Your task to perform on an android device: What's the news this month? Image 0: 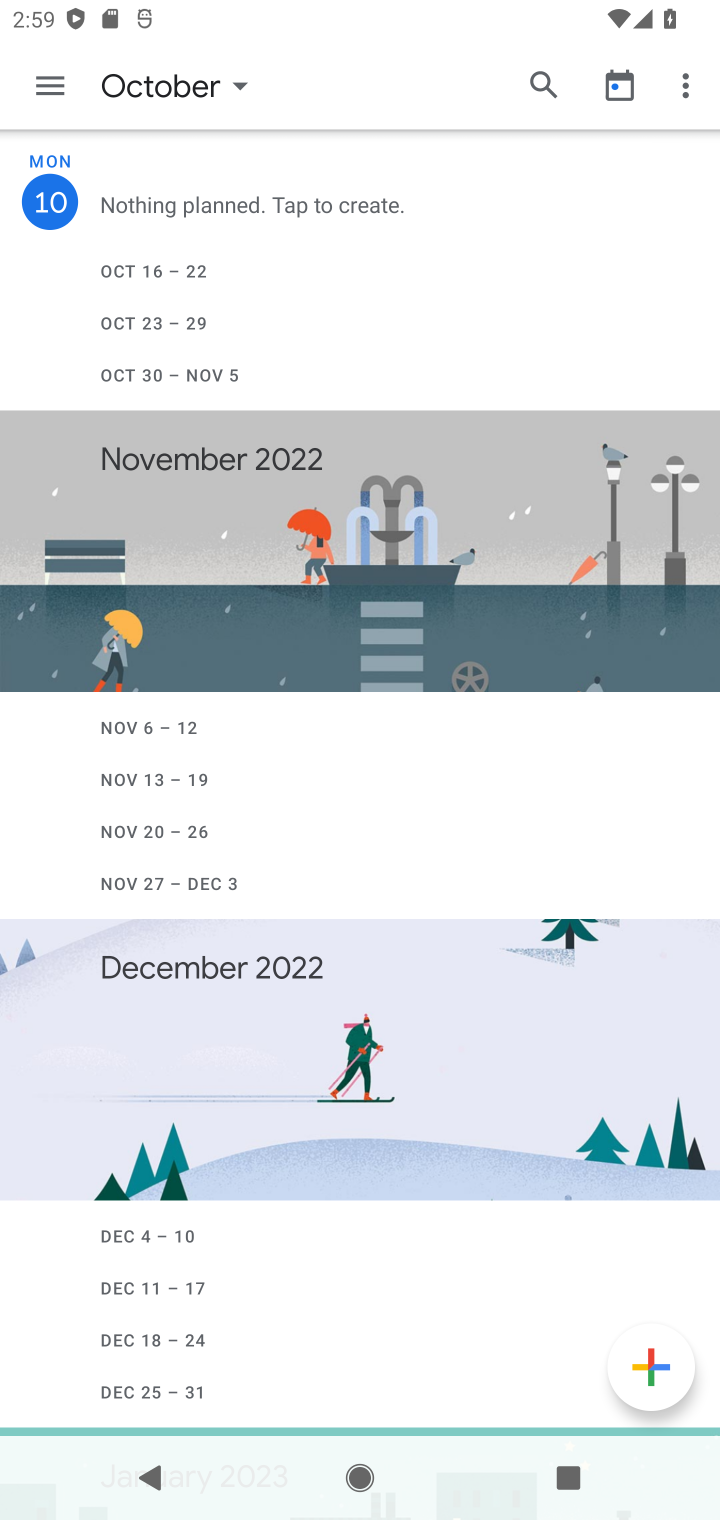
Step 0: press home button
Your task to perform on an android device: What's the news this month? Image 1: 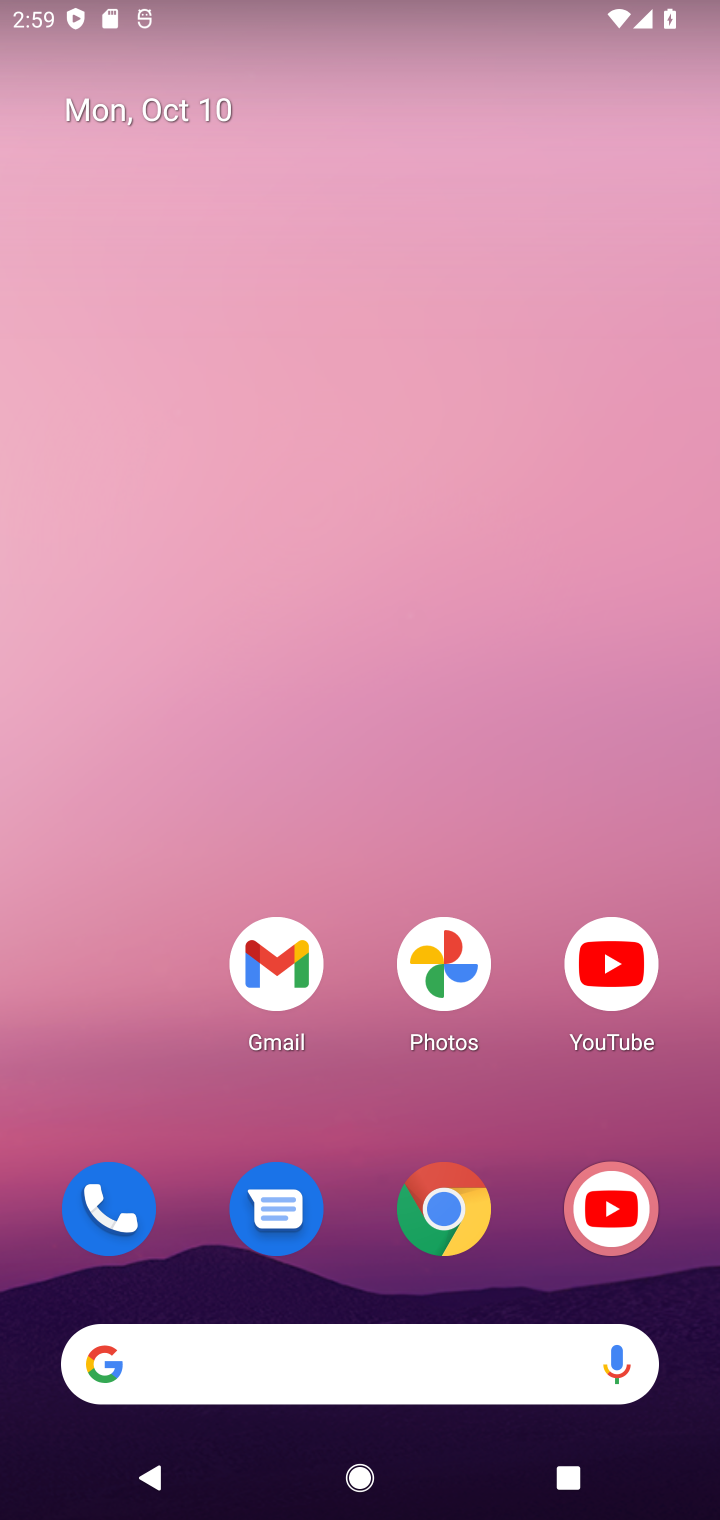
Step 1: click (470, 1238)
Your task to perform on an android device: What's the news this month? Image 2: 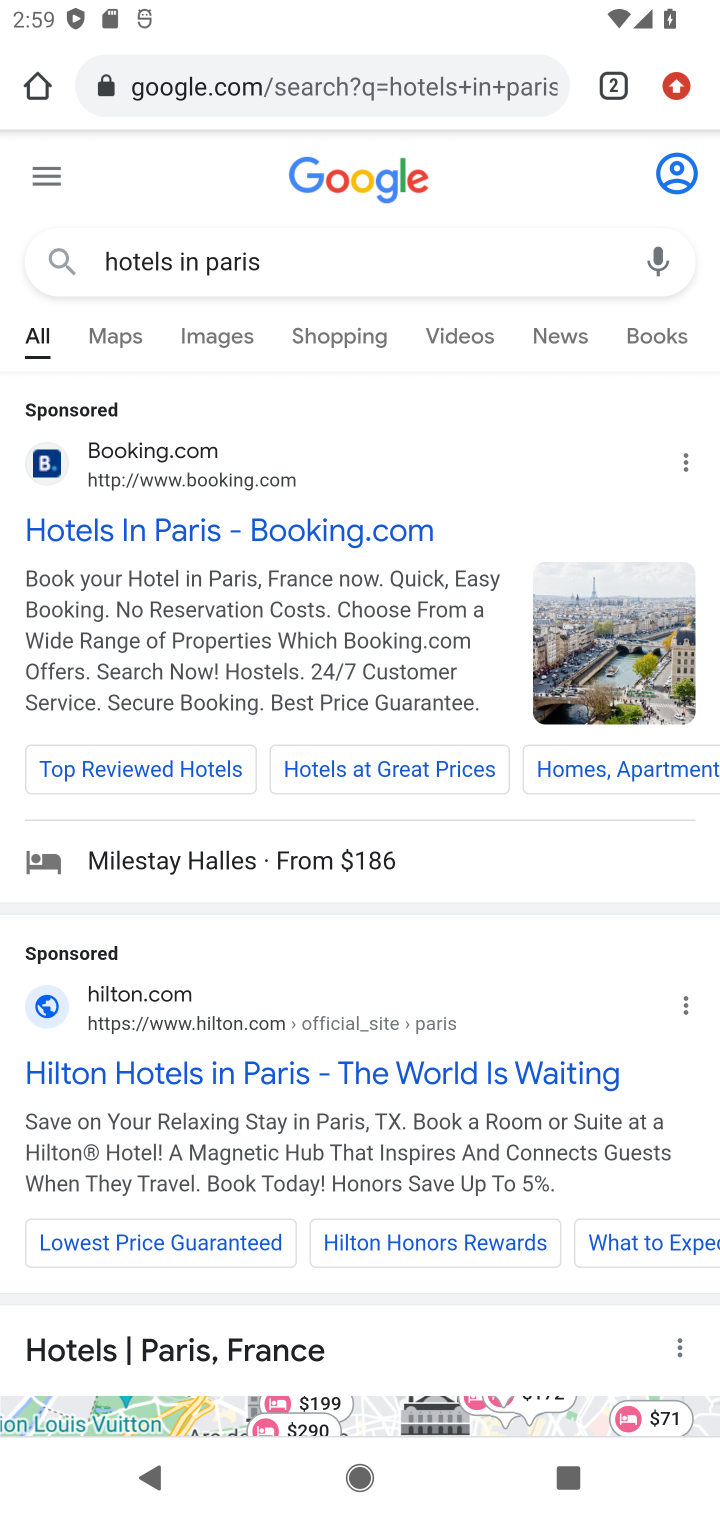
Step 2: click (467, 255)
Your task to perform on an android device: What's the news this month? Image 3: 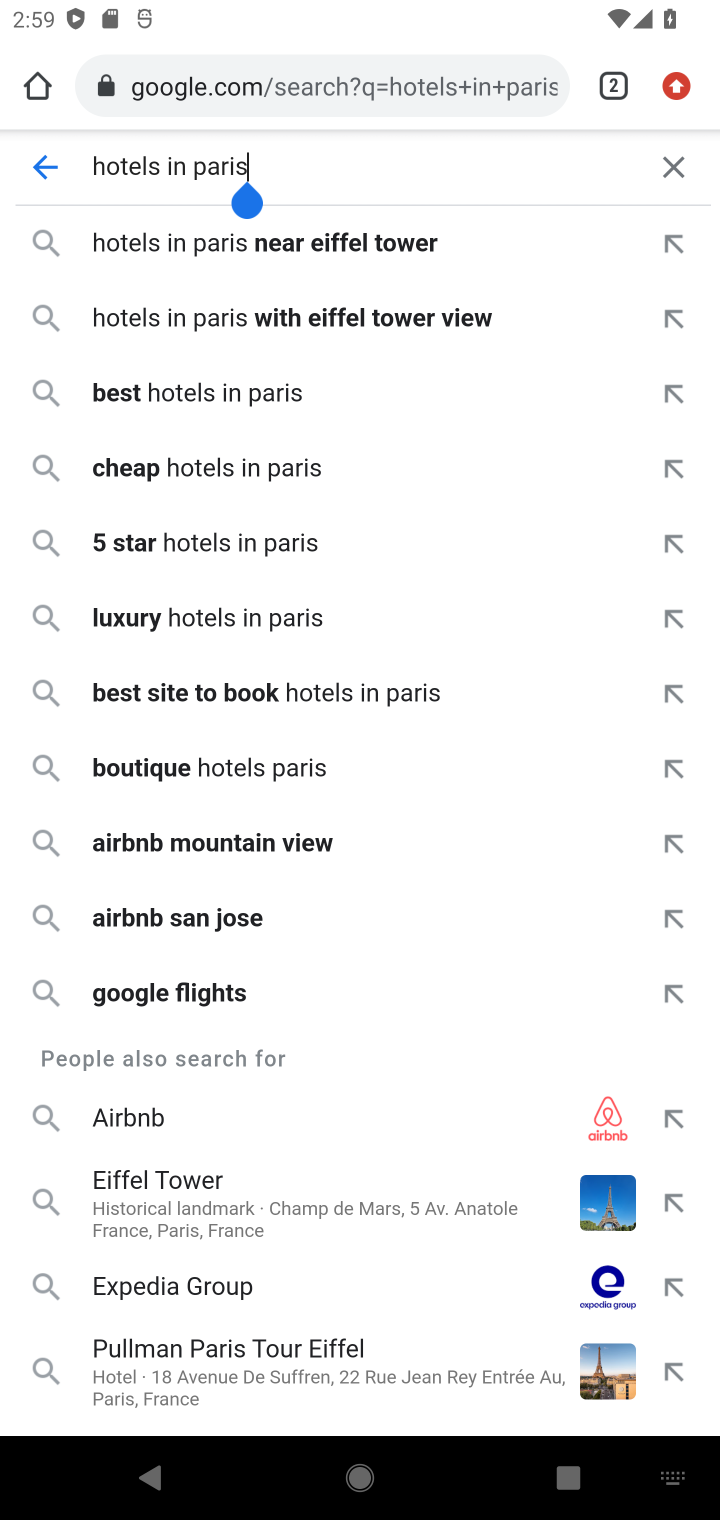
Step 3: click (668, 176)
Your task to perform on an android device: What's the news this month? Image 4: 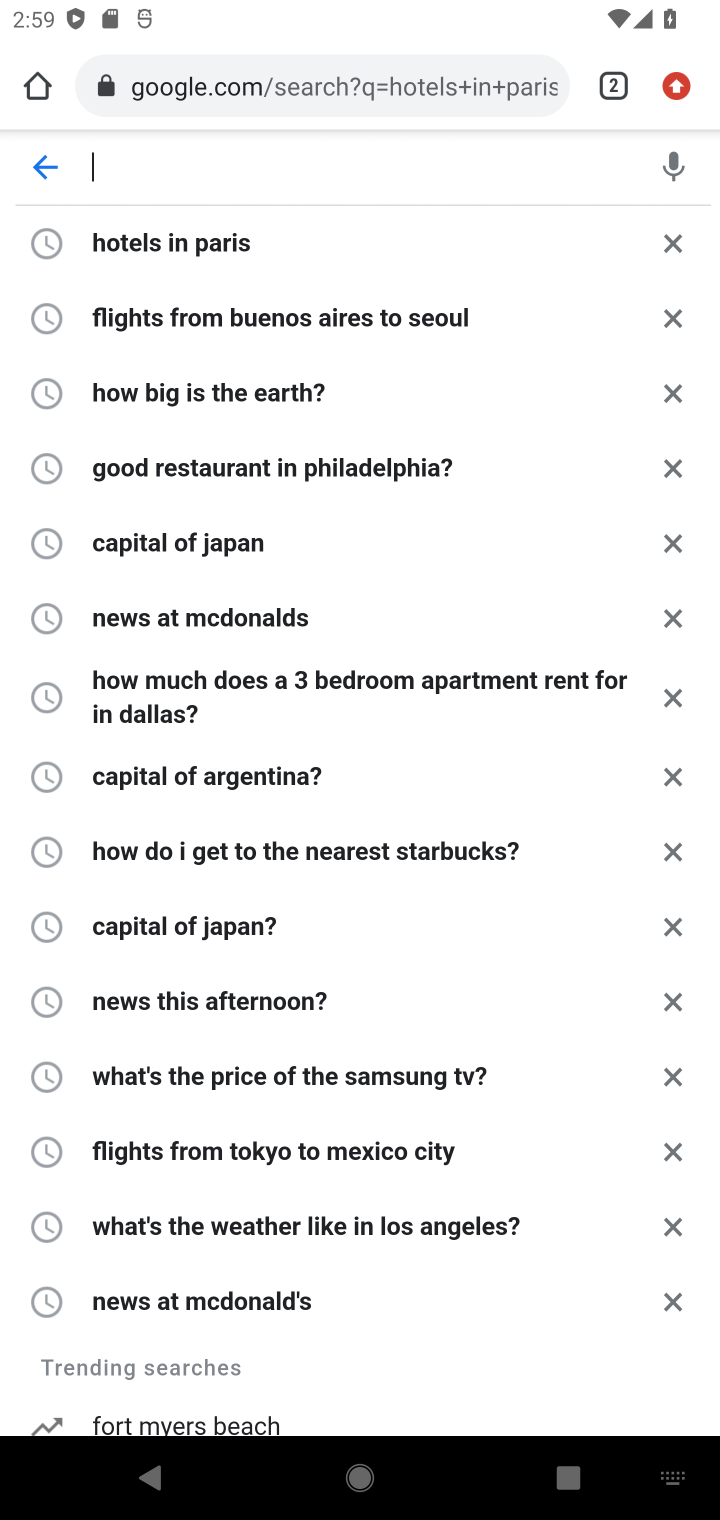
Step 4: type "news this month"
Your task to perform on an android device: What's the news this month? Image 5: 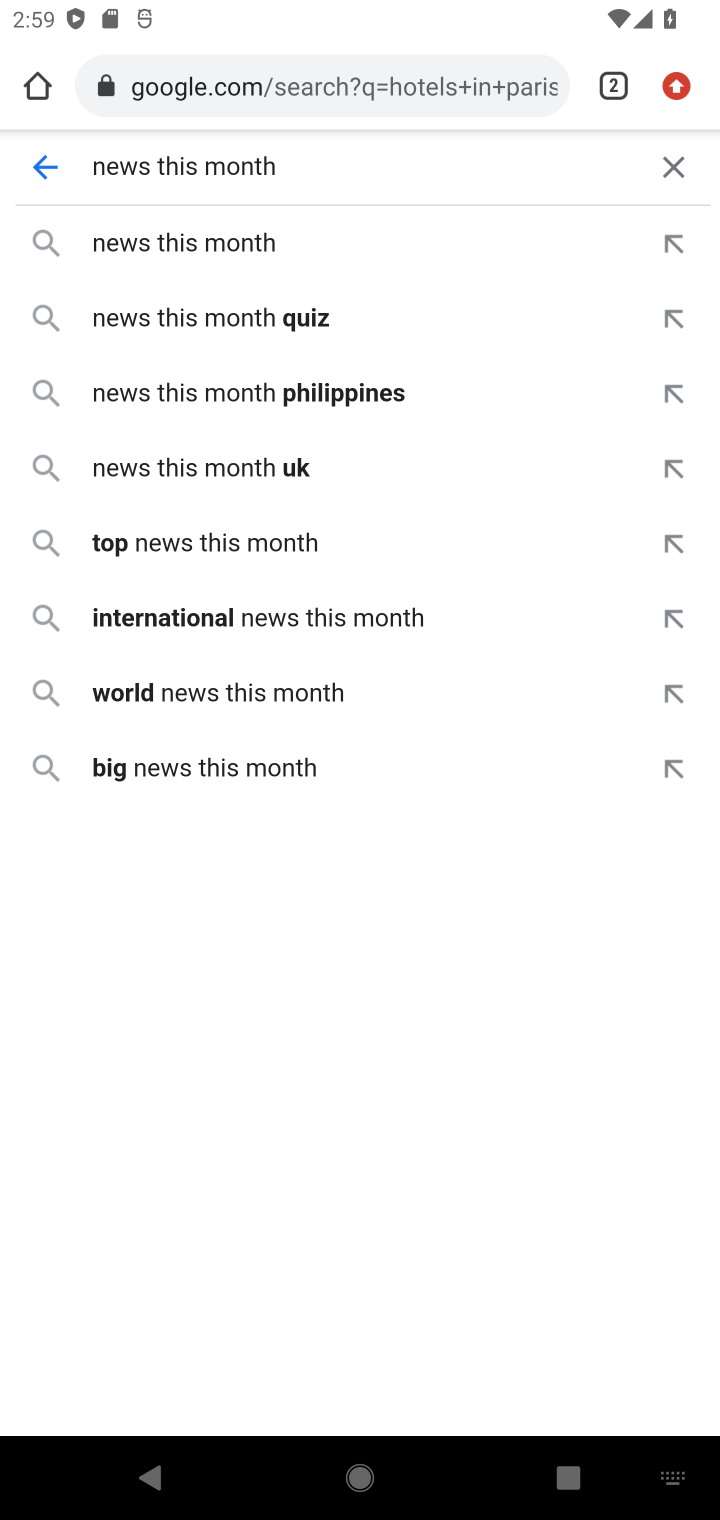
Step 5: press enter
Your task to perform on an android device: What's the news this month? Image 6: 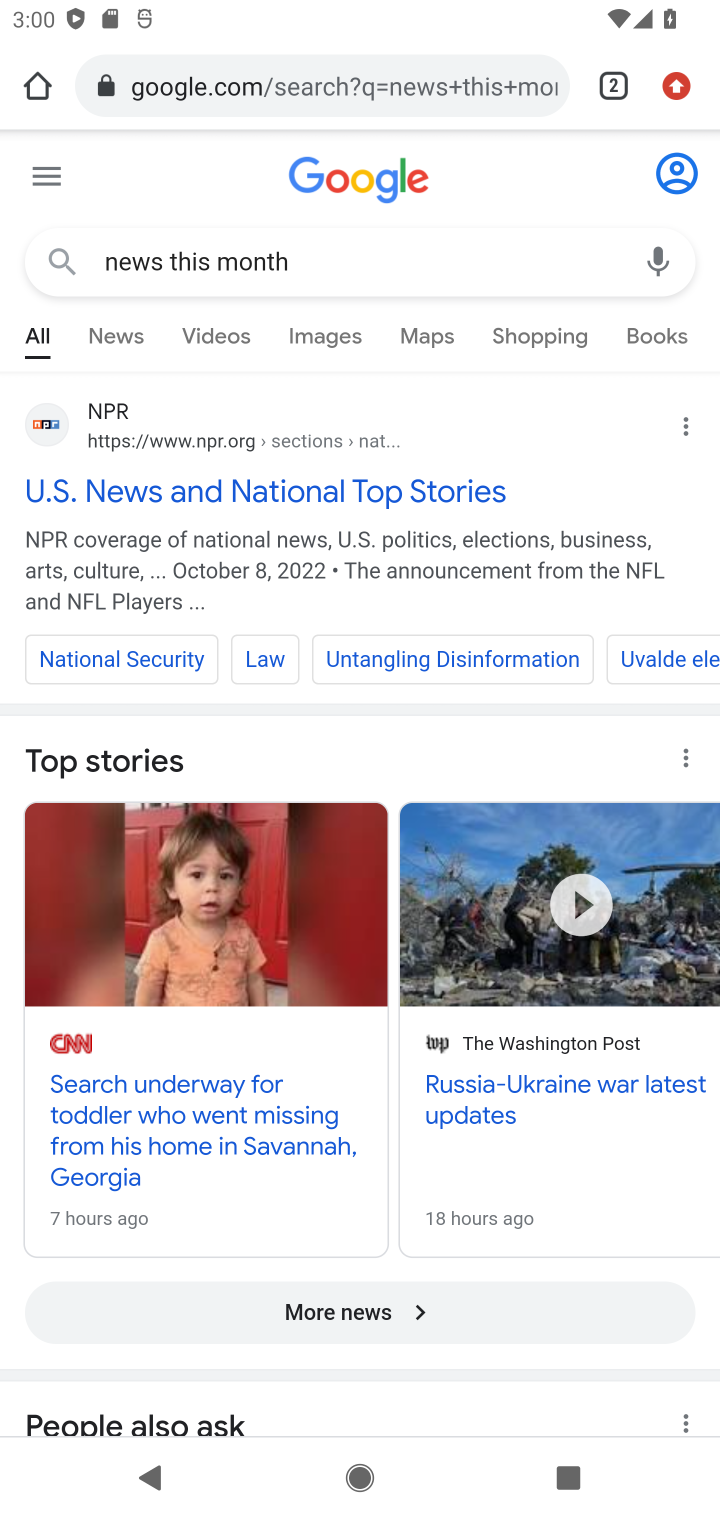
Step 6: task complete